Your task to perform on an android device: Go to Google Image 0: 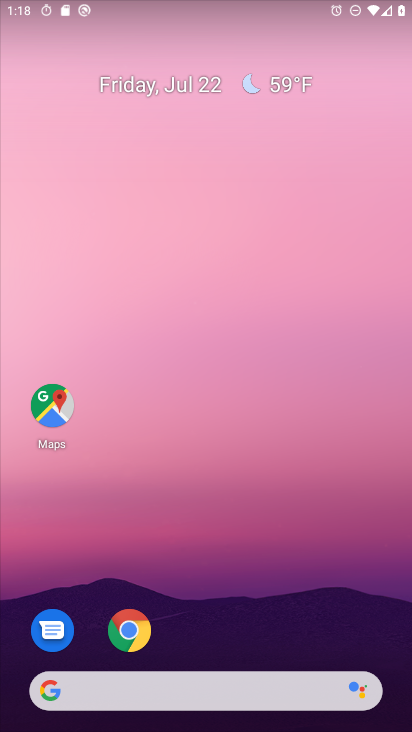
Step 0: press home button
Your task to perform on an android device: Go to Google Image 1: 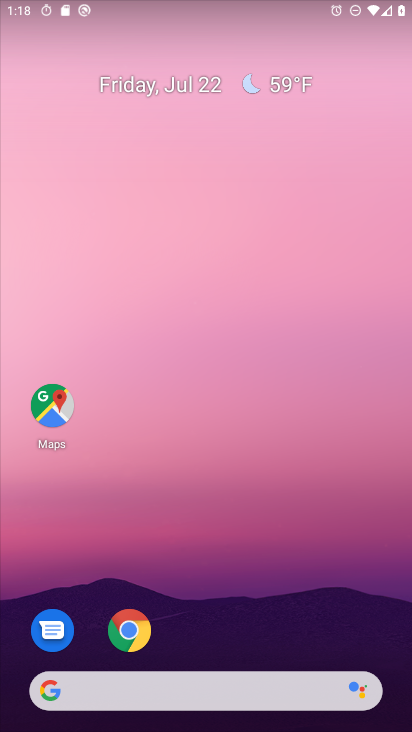
Step 1: click (44, 694)
Your task to perform on an android device: Go to Google Image 2: 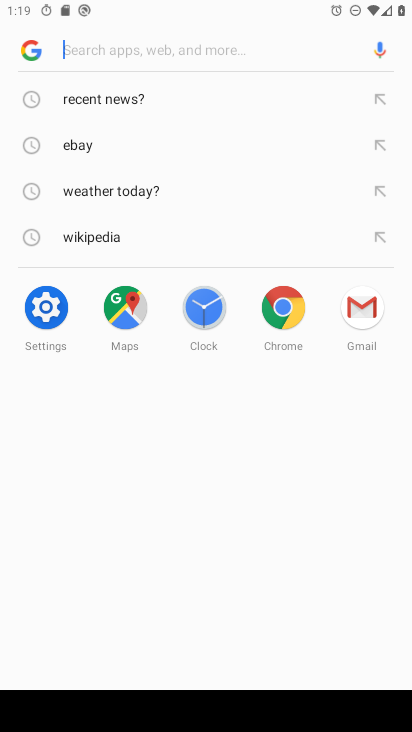
Step 2: task complete